Your task to perform on an android device: toggle location history Image 0: 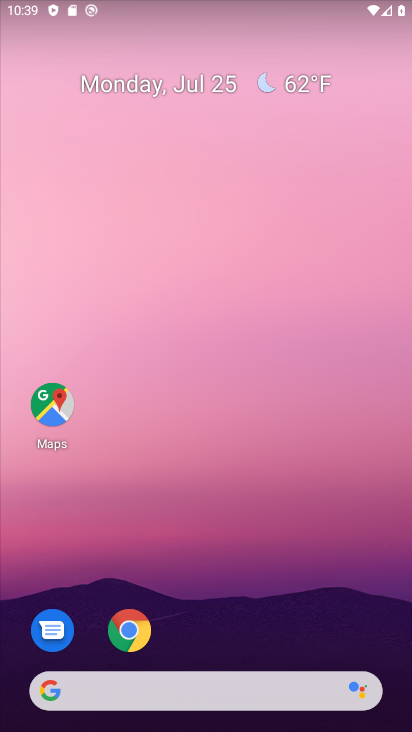
Step 0: drag from (206, 639) to (222, 164)
Your task to perform on an android device: toggle location history Image 1: 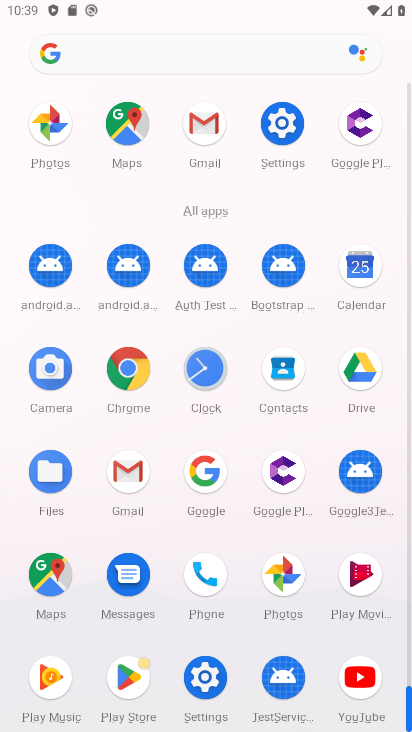
Step 1: click (275, 144)
Your task to perform on an android device: toggle location history Image 2: 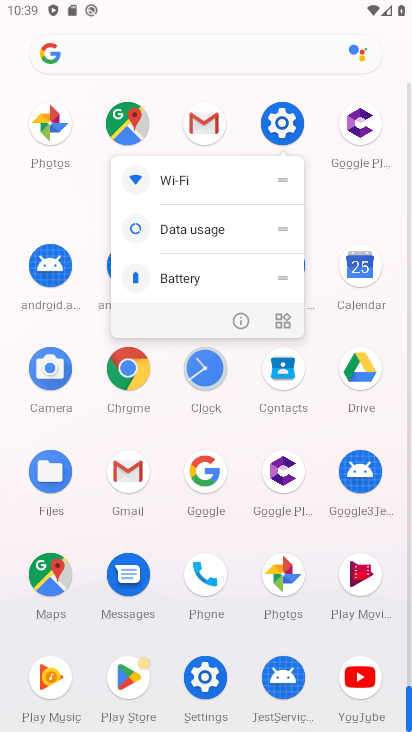
Step 2: click (237, 325)
Your task to perform on an android device: toggle location history Image 3: 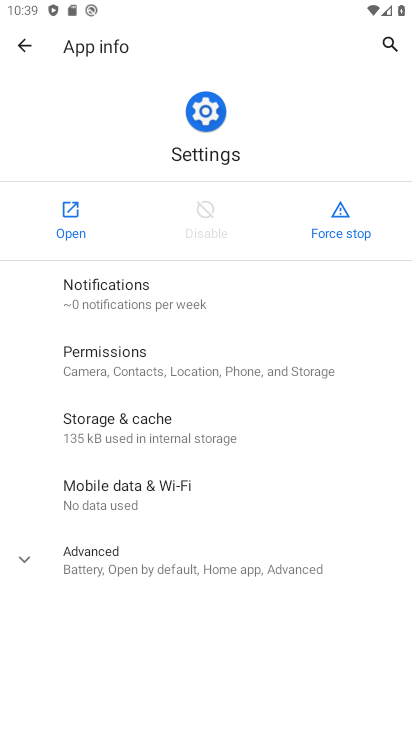
Step 3: click (67, 204)
Your task to perform on an android device: toggle location history Image 4: 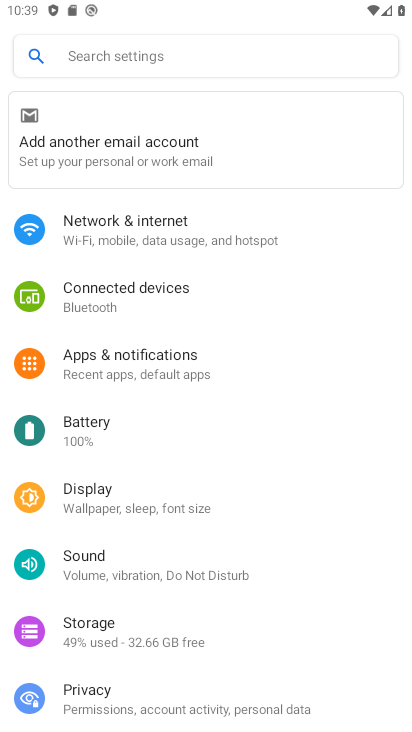
Step 4: drag from (123, 638) to (165, 202)
Your task to perform on an android device: toggle location history Image 5: 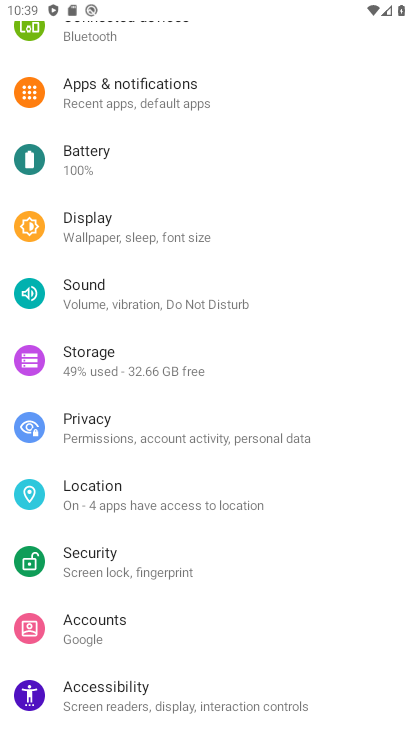
Step 5: click (110, 489)
Your task to perform on an android device: toggle location history Image 6: 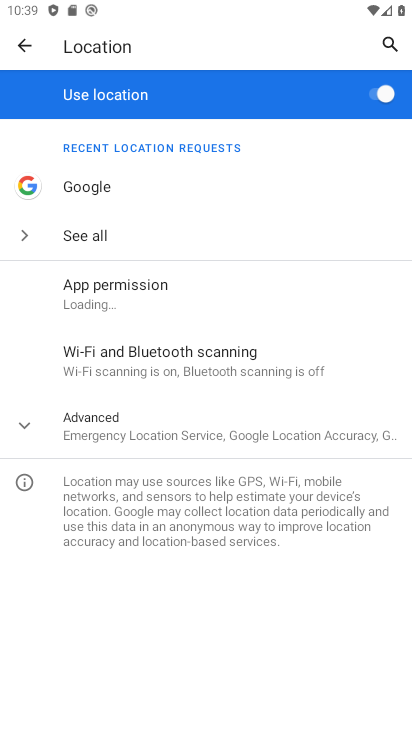
Step 6: click (115, 429)
Your task to perform on an android device: toggle location history Image 7: 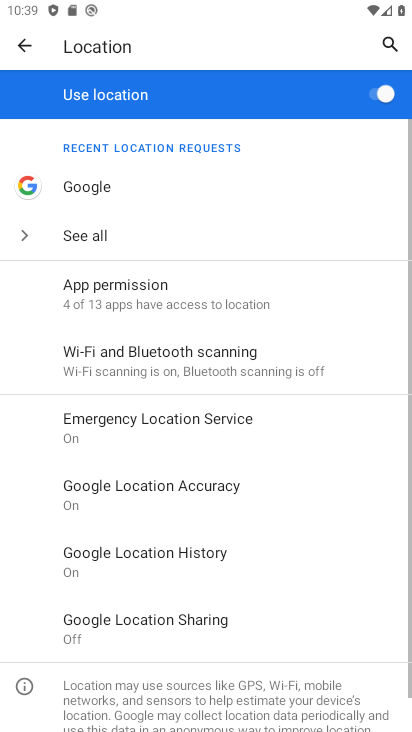
Step 7: click (184, 554)
Your task to perform on an android device: toggle location history Image 8: 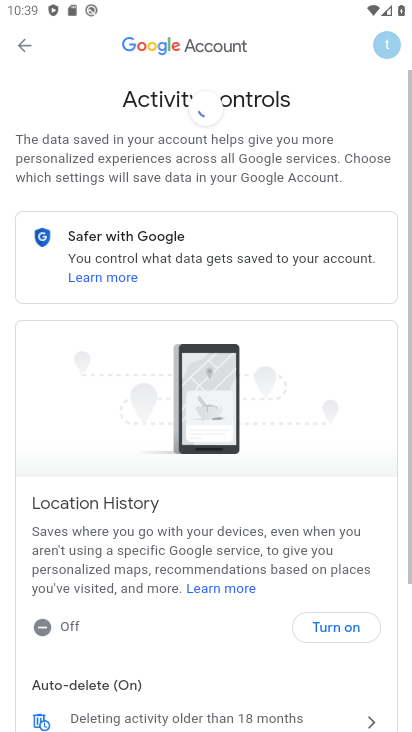
Step 8: drag from (226, 223) to (237, 159)
Your task to perform on an android device: toggle location history Image 9: 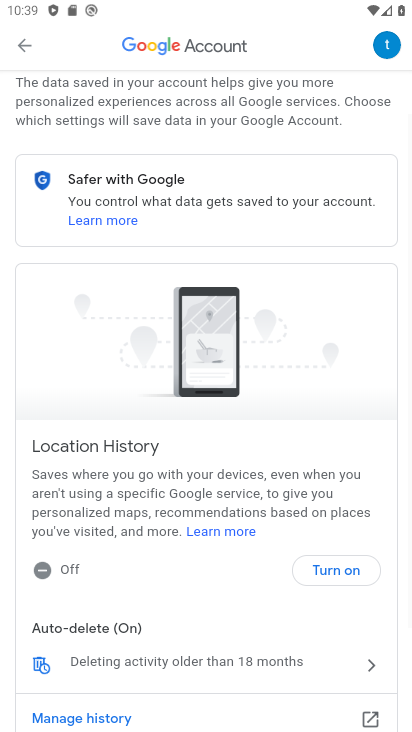
Step 9: drag from (236, 565) to (269, 282)
Your task to perform on an android device: toggle location history Image 10: 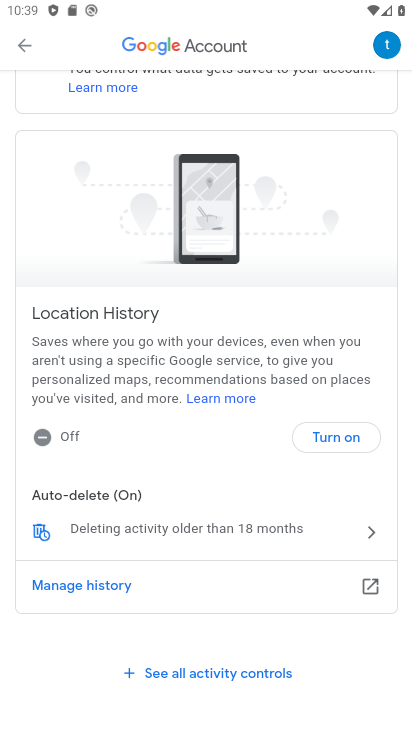
Step 10: drag from (207, 601) to (288, 254)
Your task to perform on an android device: toggle location history Image 11: 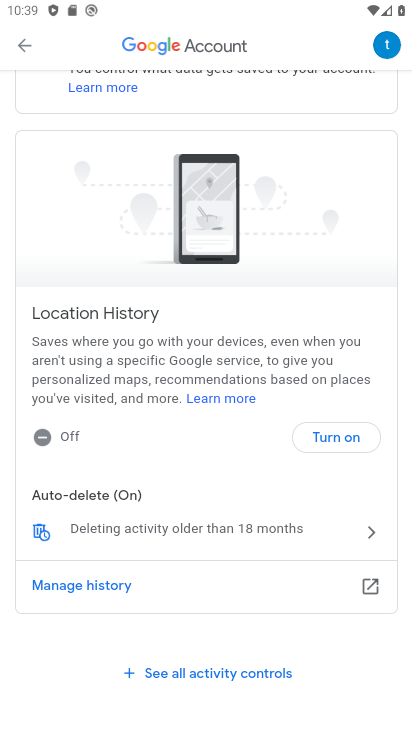
Step 11: click (36, 525)
Your task to perform on an android device: toggle location history Image 12: 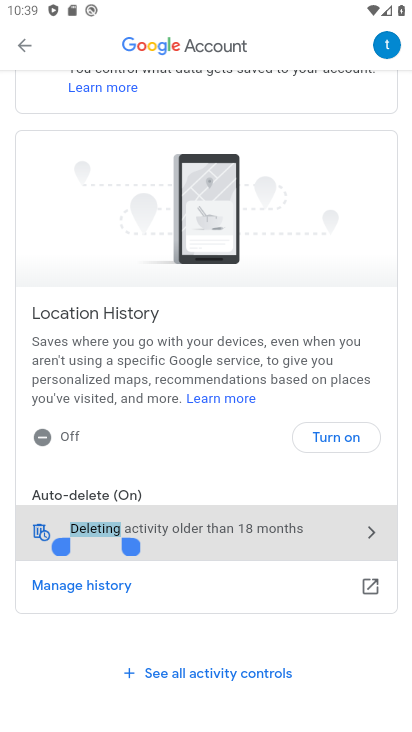
Step 12: click (337, 438)
Your task to perform on an android device: toggle location history Image 13: 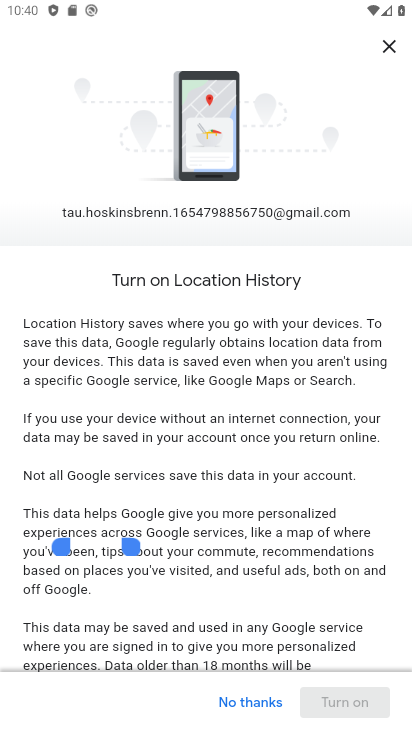
Step 13: drag from (234, 505) to (329, 60)
Your task to perform on an android device: toggle location history Image 14: 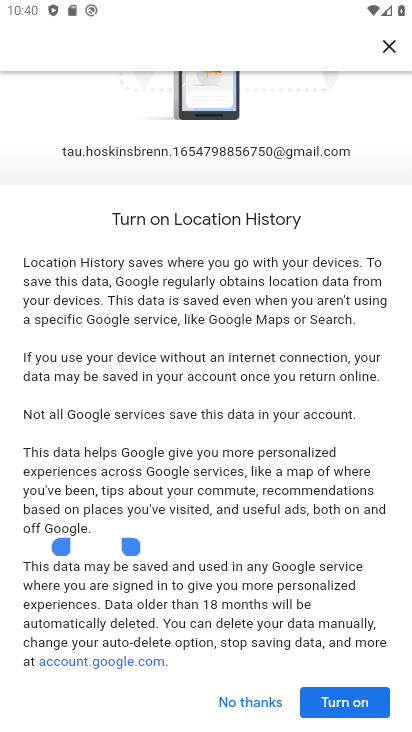
Step 14: drag from (247, 468) to (307, 192)
Your task to perform on an android device: toggle location history Image 15: 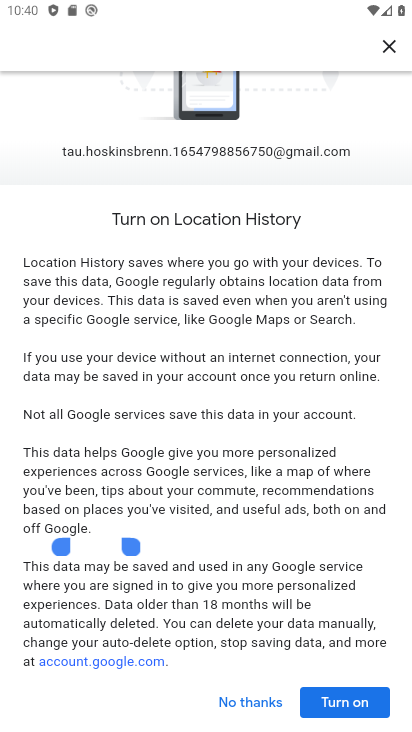
Step 15: click (346, 703)
Your task to perform on an android device: toggle location history Image 16: 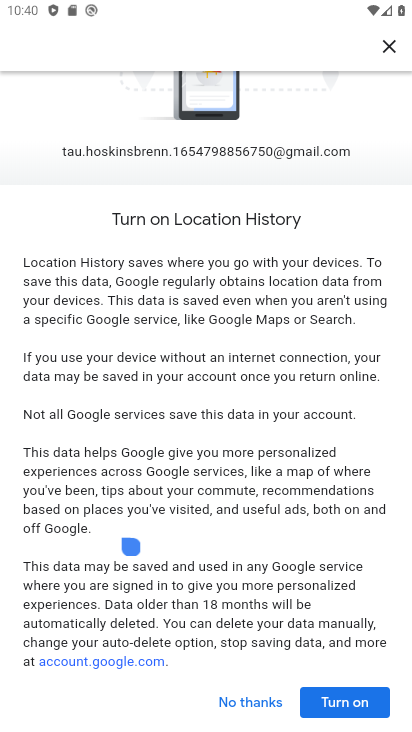
Step 16: click (340, 690)
Your task to perform on an android device: toggle location history Image 17: 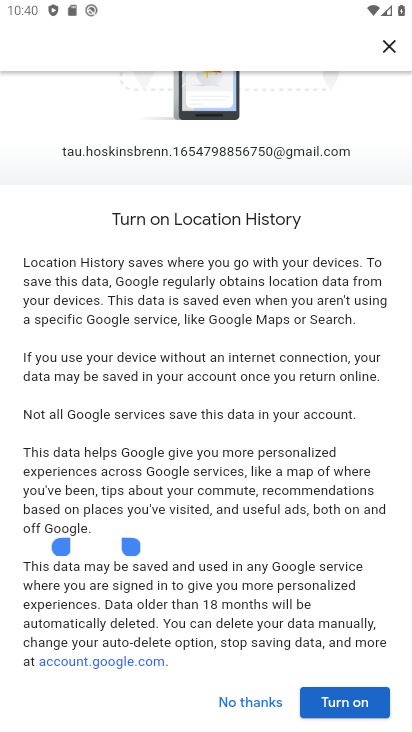
Step 17: click (332, 701)
Your task to perform on an android device: toggle location history Image 18: 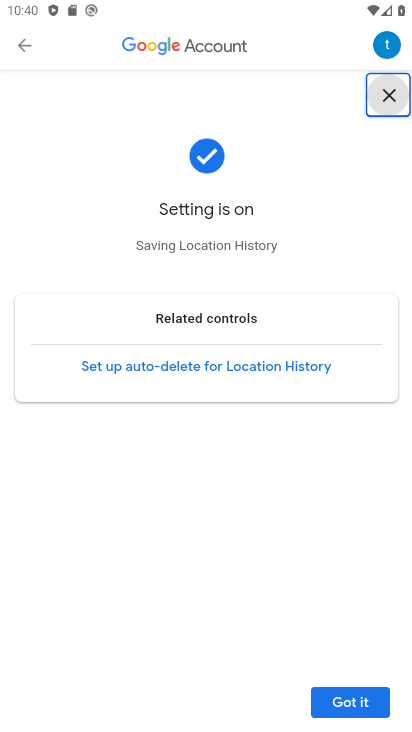
Step 18: click (339, 701)
Your task to perform on an android device: toggle location history Image 19: 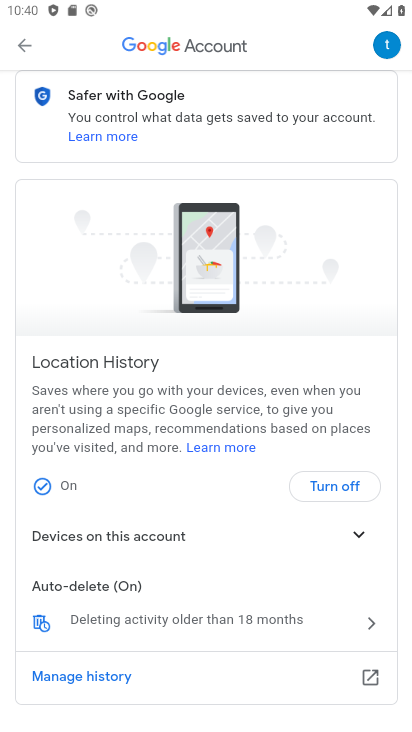
Step 19: task complete